Your task to perform on an android device: Open sound settings Image 0: 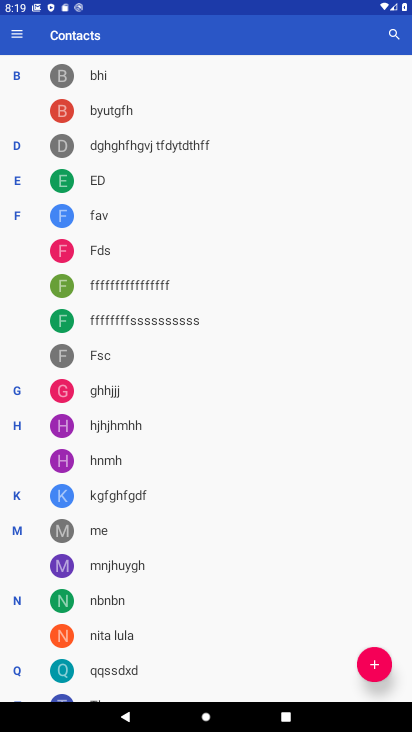
Step 0: press home button
Your task to perform on an android device: Open sound settings Image 1: 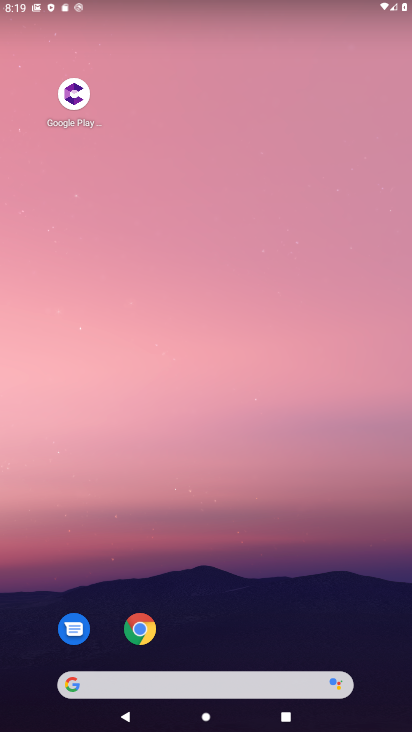
Step 1: drag from (226, 642) to (235, 205)
Your task to perform on an android device: Open sound settings Image 2: 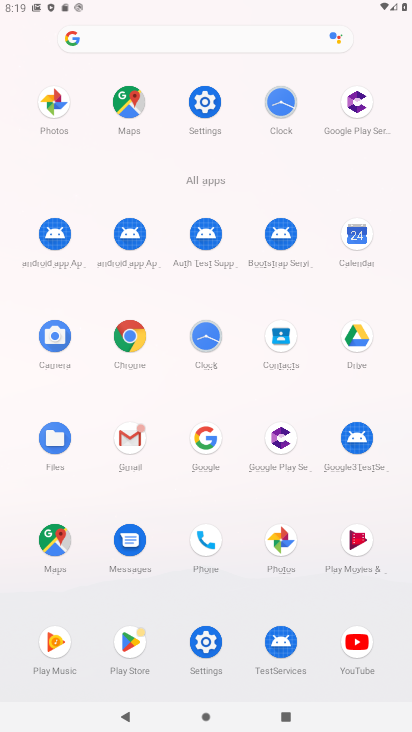
Step 2: click (204, 651)
Your task to perform on an android device: Open sound settings Image 3: 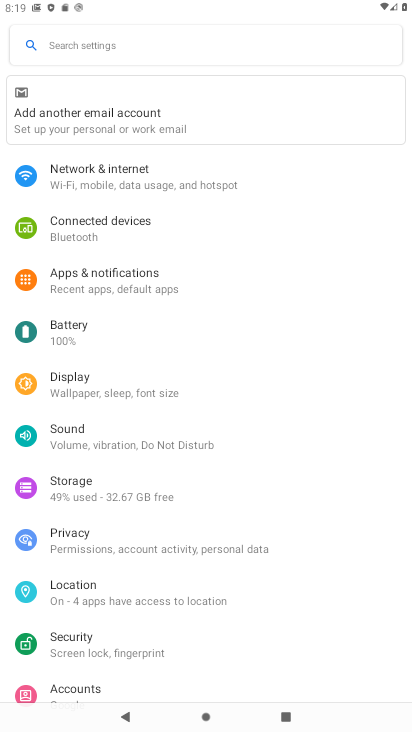
Step 3: click (105, 448)
Your task to perform on an android device: Open sound settings Image 4: 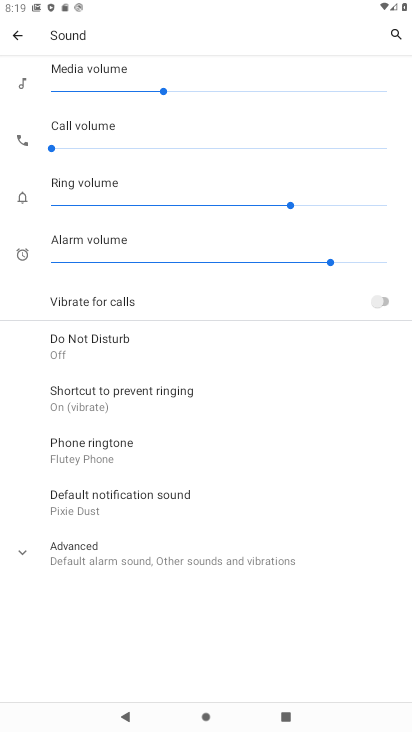
Step 4: task complete